Your task to perform on an android device: Turn on the flashlight Image 0: 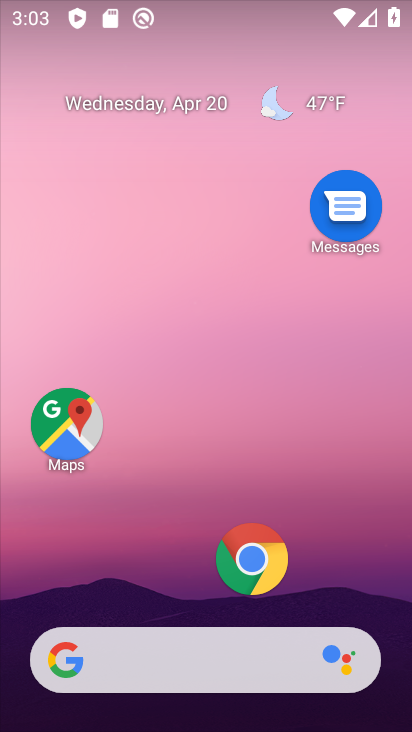
Step 0: drag from (272, 67) to (259, 555)
Your task to perform on an android device: Turn on the flashlight Image 1: 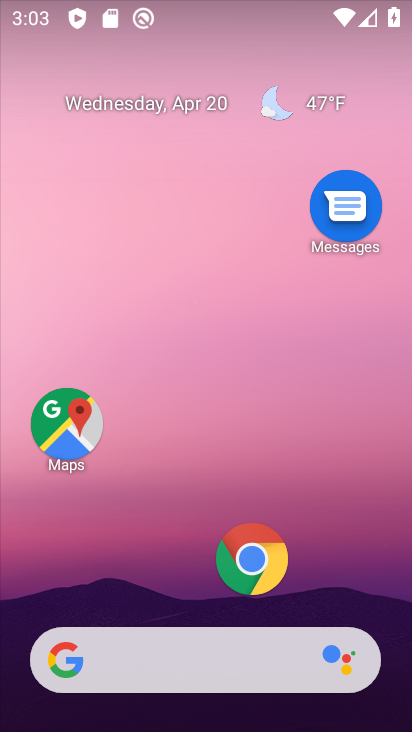
Step 1: task complete